Your task to perform on an android device: change the clock style Image 0: 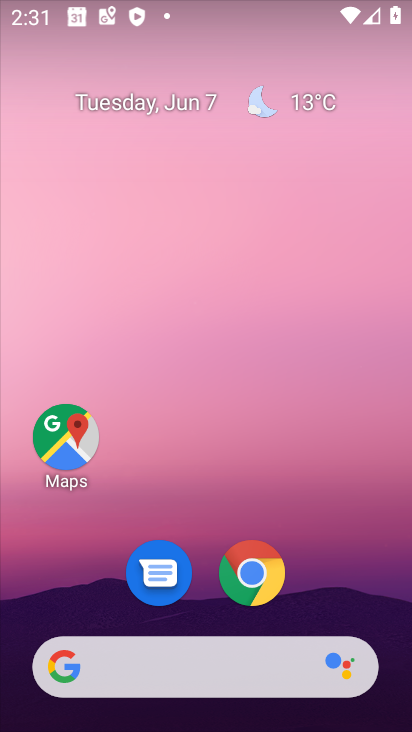
Step 0: drag from (339, 596) to (315, 0)
Your task to perform on an android device: change the clock style Image 1: 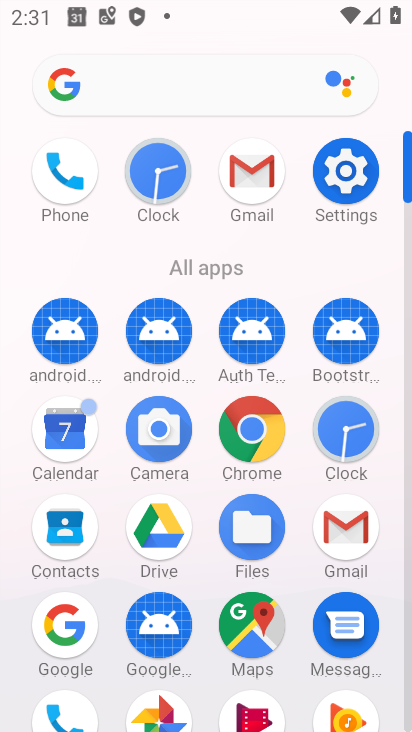
Step 1: click (154, 167)
Your task to perform on an android device: change the clock style Image 2: 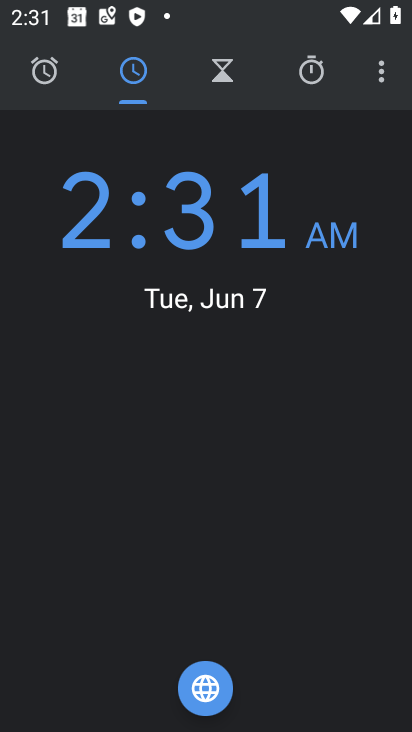
Step 2: click (369, 65)
Your task to perform on an android device: change the clock style Image 3: 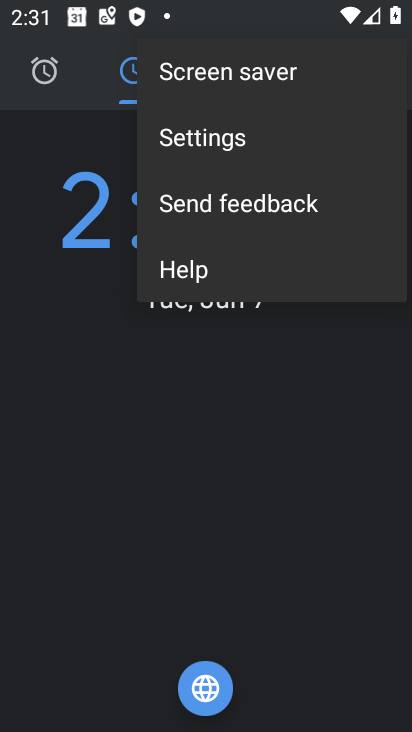
Step 3: click (263, 151)
Your task to perform on an android device: change the clock style Image 4: 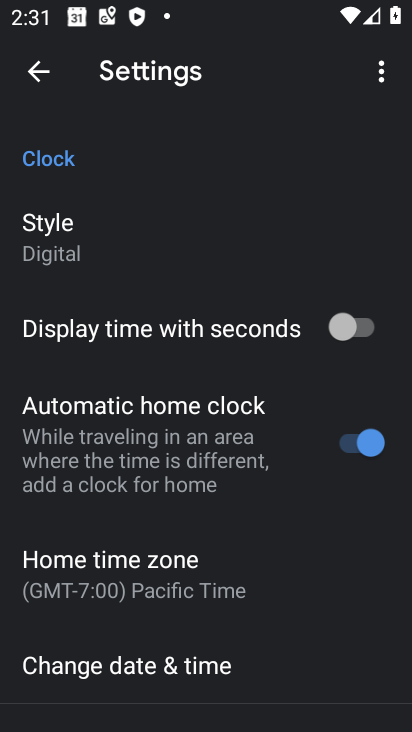
Step 4: click (94, 240)
Your task to perform on an android device: change the clock style Image 5: 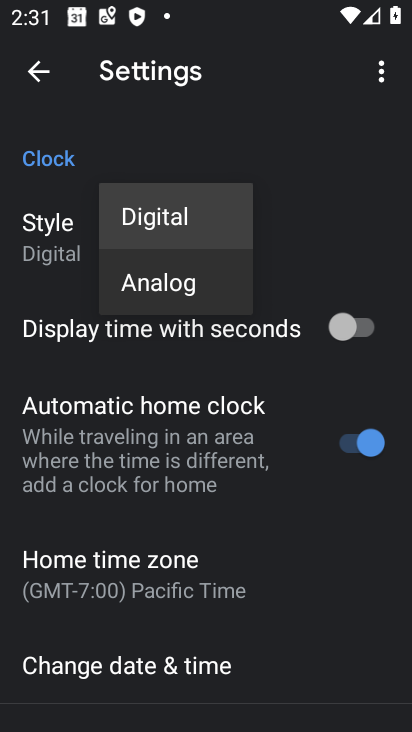
Step 5: click (189, 284)
Your task to perform on an android device: change the clock style Image 6: 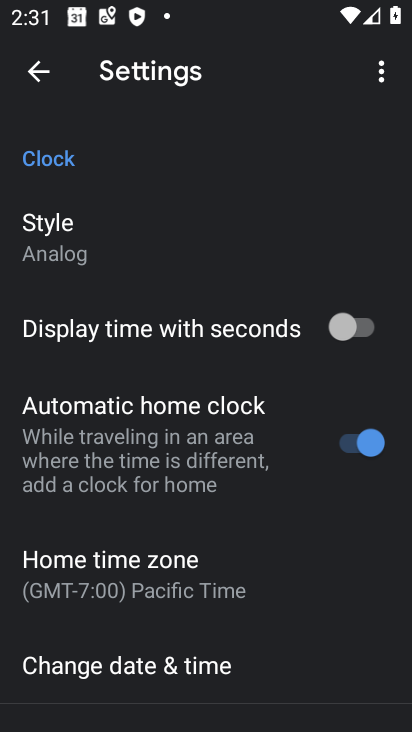
Step 6: task complete